Your task to perform on an android device: Is it going to rain this weekend? Image 0: 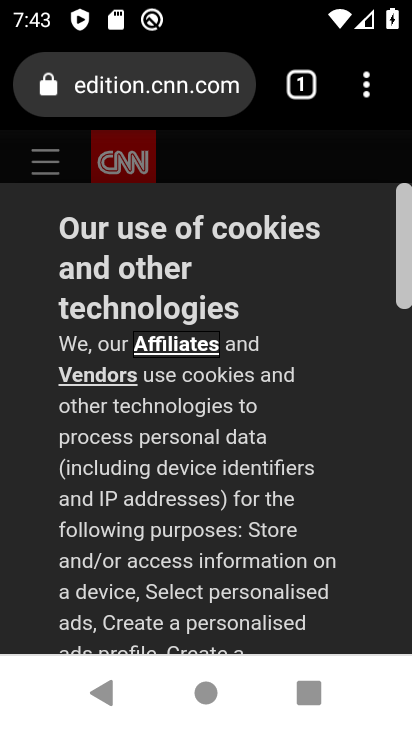
Step 0: press home button
Your task to perform on an android device: Is it going to rain this weekend? Image 1: 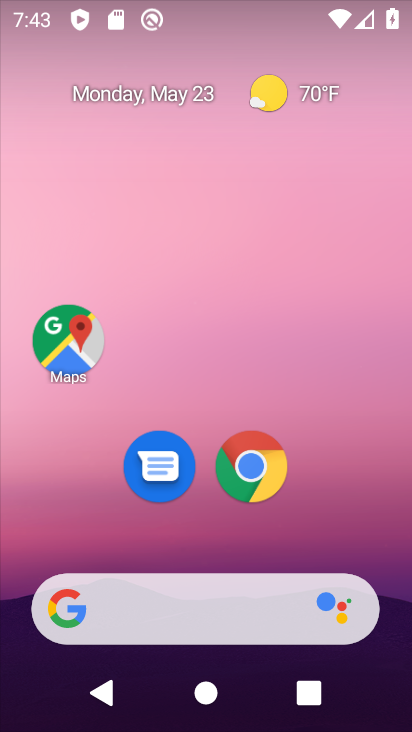
Step 1: drag from (197, 572) to (226, 25)
Your task to perform on an android device: Is it going to rain this weekend? Image 2: 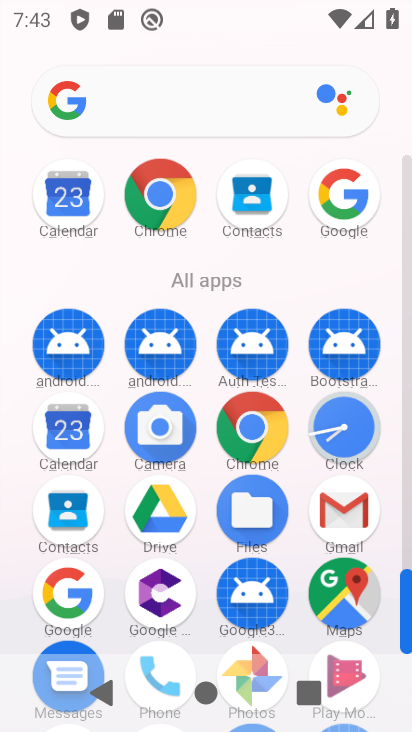
Step 2: drag from (201, 404) to (233, 72)
Your task to perform on an android device: Is it going to rain this weekend? Image 3: 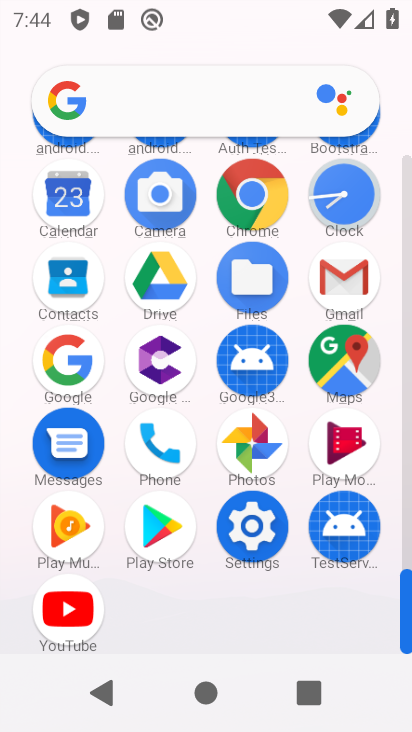
Step 3: click (69, 372)
Your task to perform on an android device: Is it going to rain this weekend? Image 4: 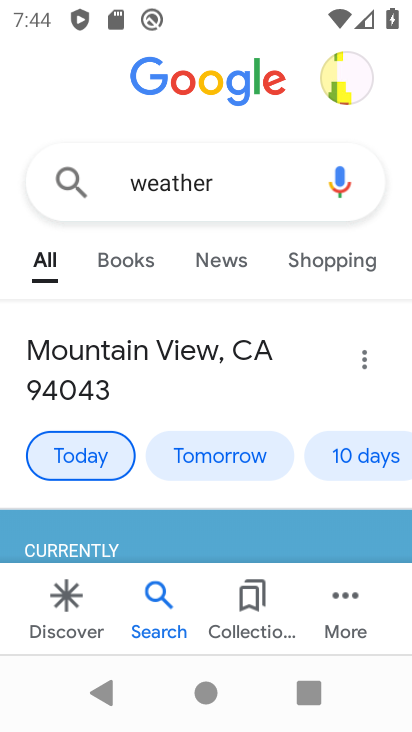
Step 4: click (357, 461)
Your task to perform on an android device: Is it going to rain this weekend? Image 5: 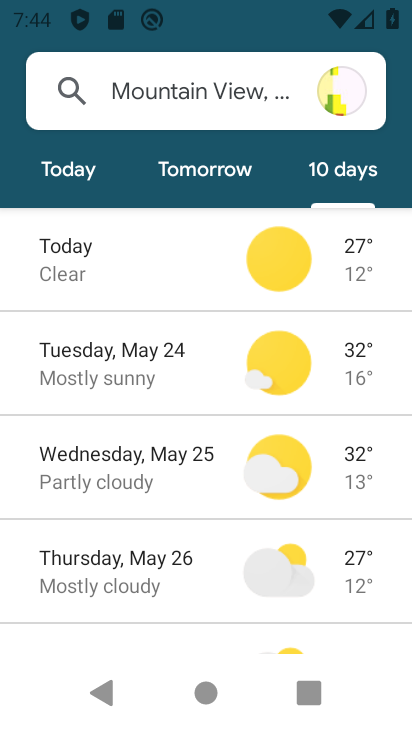
Step 5: task complete